Your task to perform on an android device: search for starred emails in the gmail app Image 0: 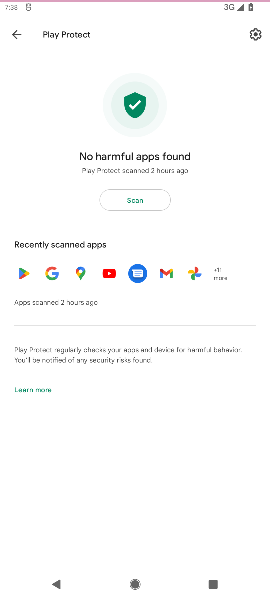
Step 0: press home button
Your task to perform on an android device: search for starred emails in the gmail app Image 1: 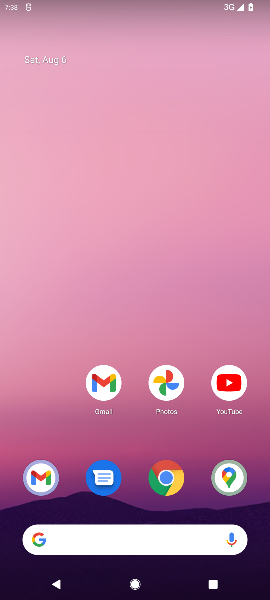
Step 1: click (108, 392)
Your task to perform on an android device: search for starred emails in the gmail app Image 2: 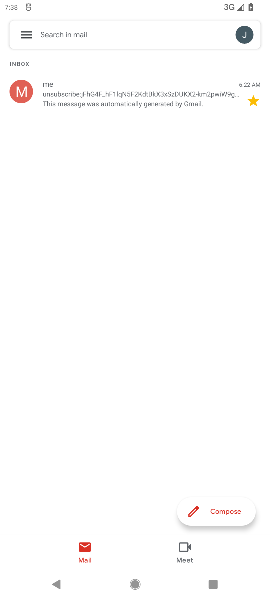
Step 2: task complete